Your task to perform on an android device: toggle airplane mode Image 0: 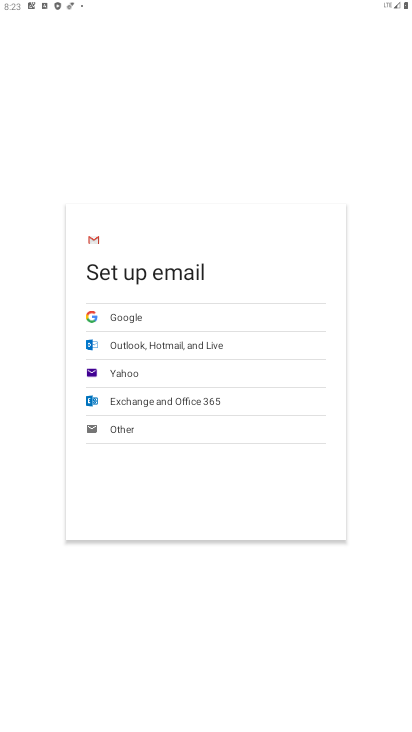
Step 0: press home button
Your task to perform on an android device: toggle airplane mode Image 1: 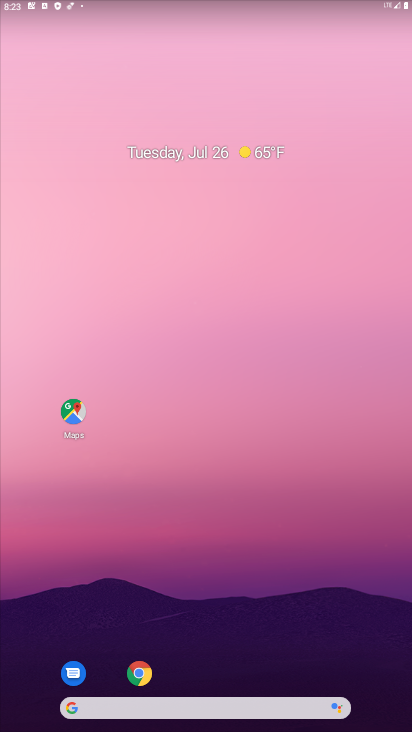
Step 1: drag from (242, 620) to (204, 119)
Your task to perform on an android device: toggle airplane mode Image 2: 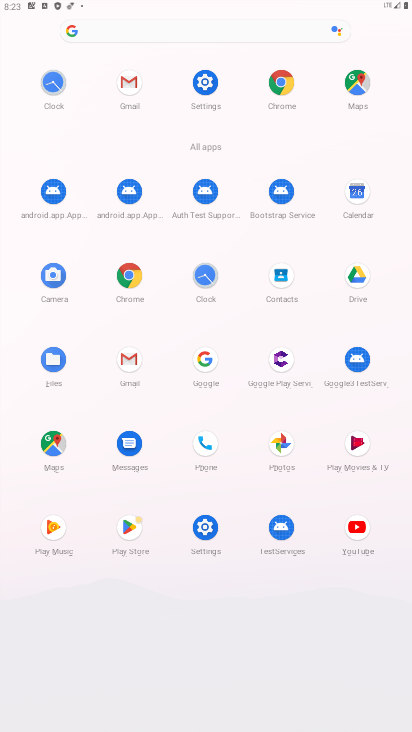
Step 2: click (199, 102)
Your task to perform on an android device: toggle airplane mode Image 3: 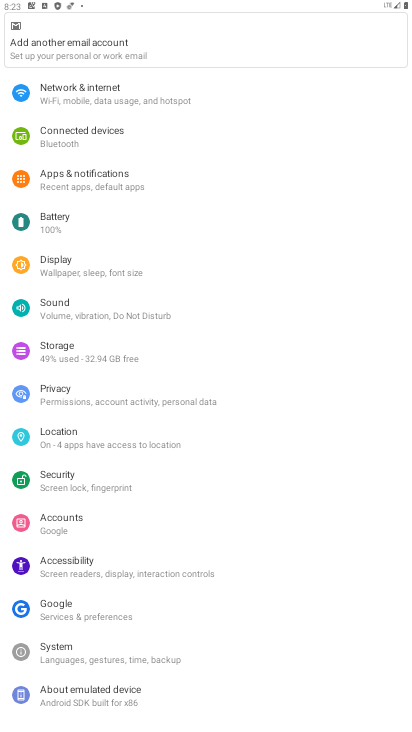
Step 3: click (168, 99)
Your task to perform on an android device: toggle airplane mode Image 4: 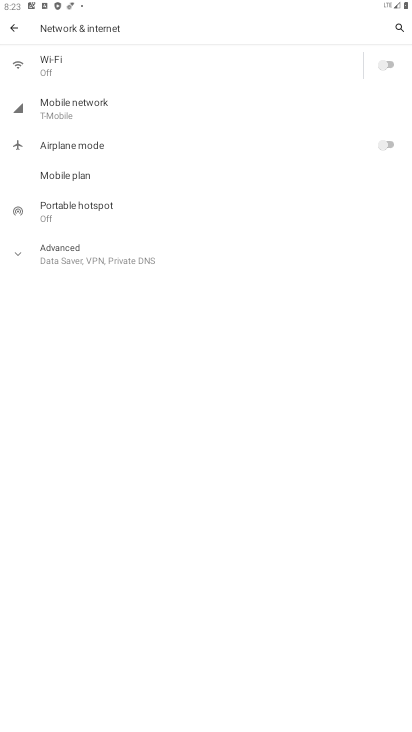
Step 4: click (397, 140)
Your task to perform on an android device: toggle airplane mode Image 5: 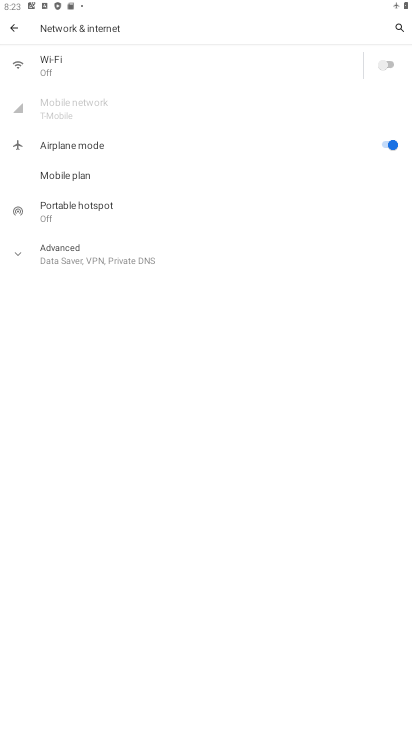
Step 5: task complete